Your task to perform on an android device: allow cookies in the chrome app Image 0: 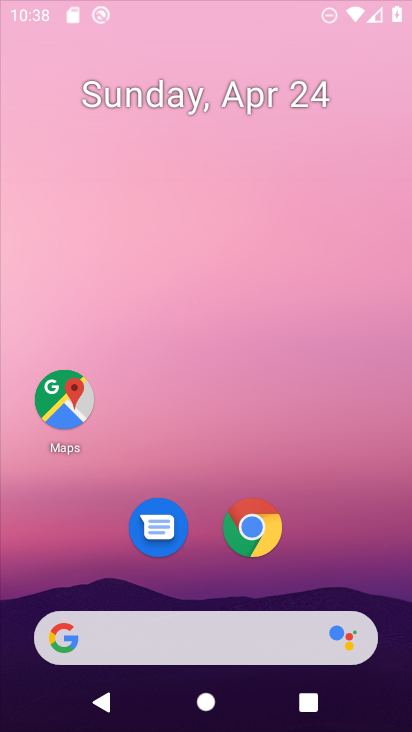
Step 0: drag from (388, 611) to (285, 150)
Your task to perform on an android device: allow cookies in the chrome app Image 1: 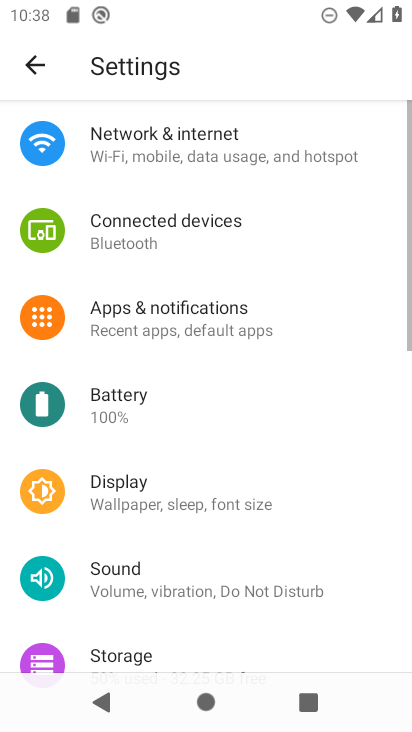
Step 1: press home button
Your task to perform on an android device: allow cookies in the chrome app Image 2: 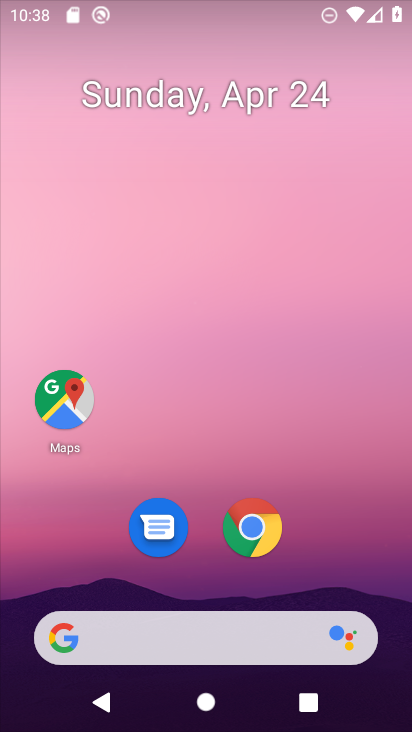
Step 2: drag from (381, 620) to (269, 94)
Your task to perform on an android device: allow cookies in the chrome app Image 3: 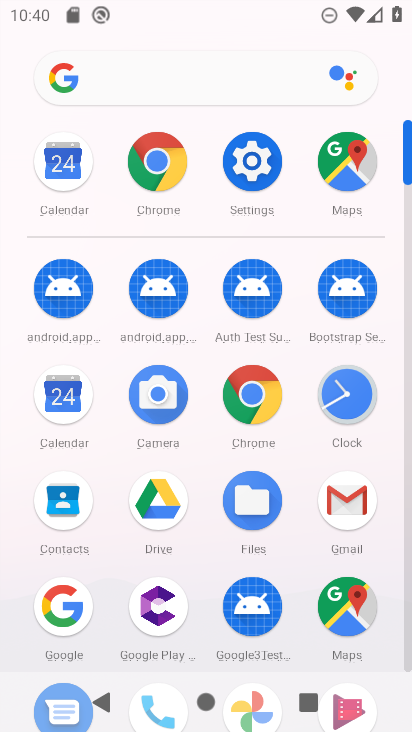
Step 3: click (263, 407)
Your task to perform on an android device: allow cookies in the chrome app Image 4: 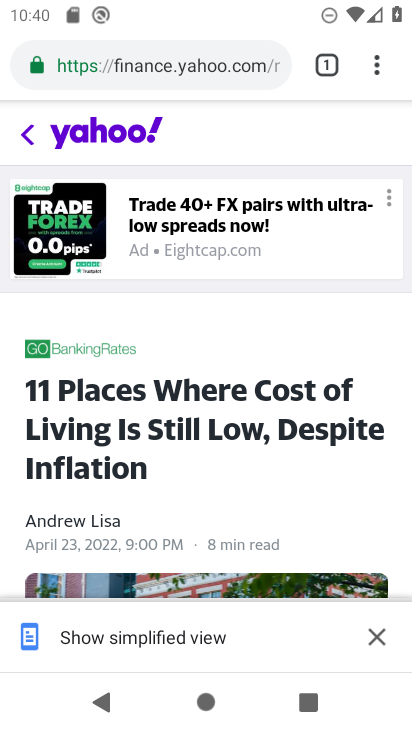
Step 4: click (377, 67)
Your task to perform on an android device: allow cookies in the chrome app Image 5: 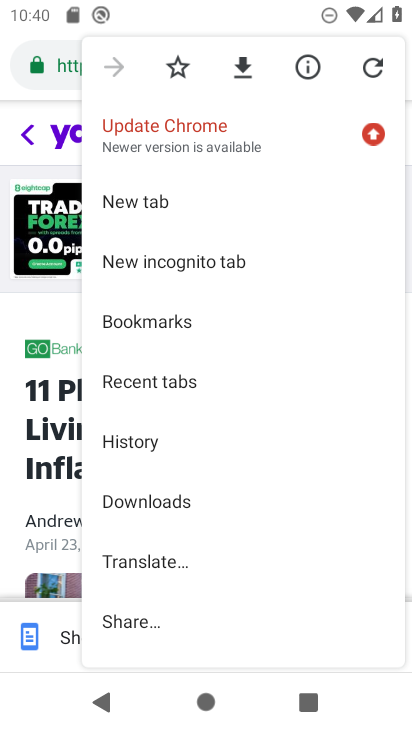
Step 5: click (157, 454)
Your task to perform on an android device: allow cookies in the chrome app Image 6: 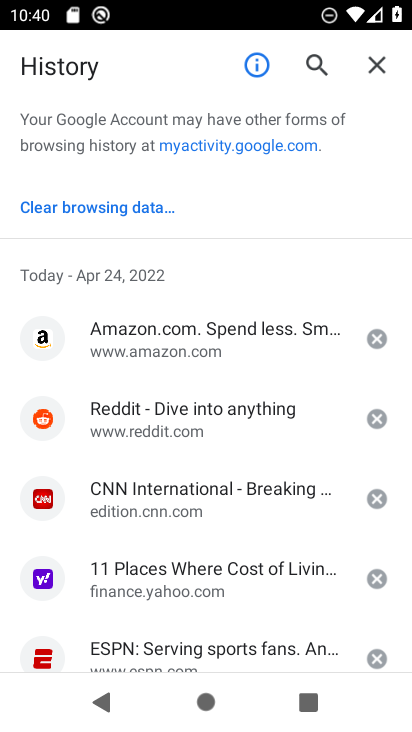
Step 6: click (120, 203)
Your task to perform on an android device: allow cookies in the chrome app Image 7: 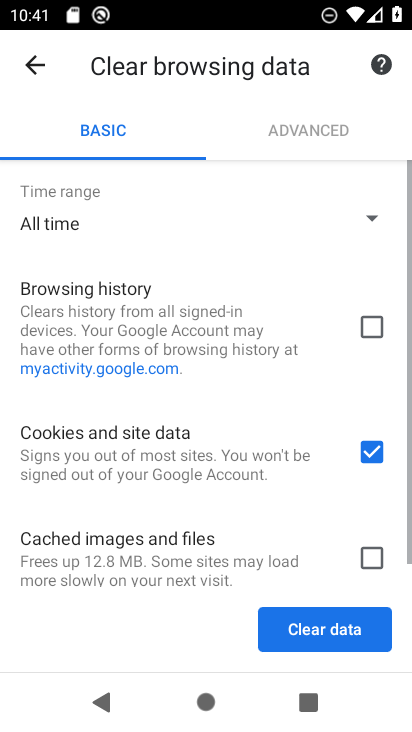
Step 7: click (286, 130)
Your task to perform on an android device: allow cookies in the chrome app Image 8: 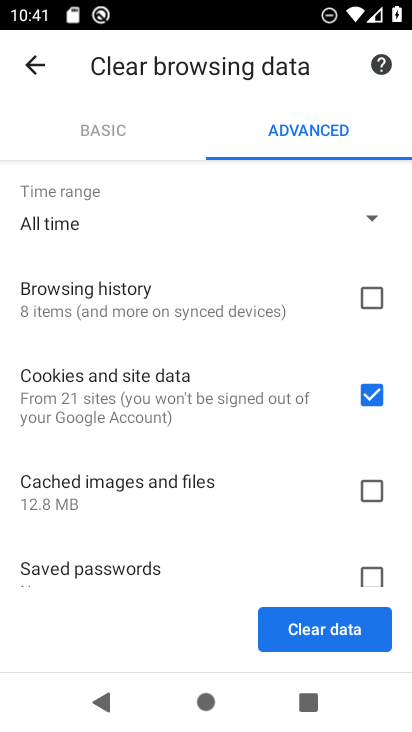
Step 8: task complete